Your task to perform on an android device: Go to Reddit.com Image 0: 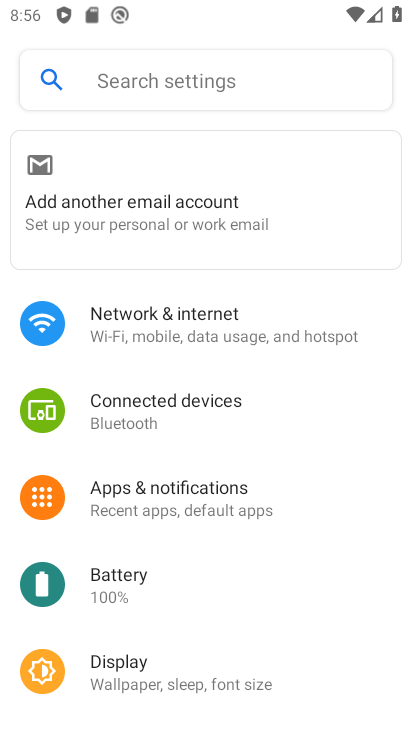
Step 0: press home button
Your task to perform on an android device: Go to Reddit.com Image 1: 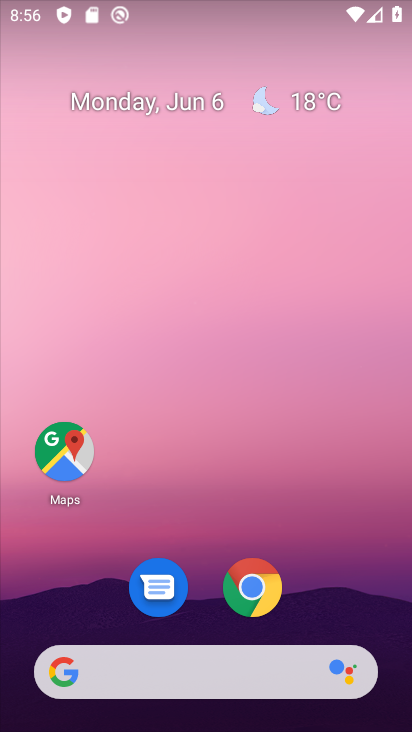
Step 1: click (250, 589)
Your task to perform on an android device: Go to Reddit.com Image 2: 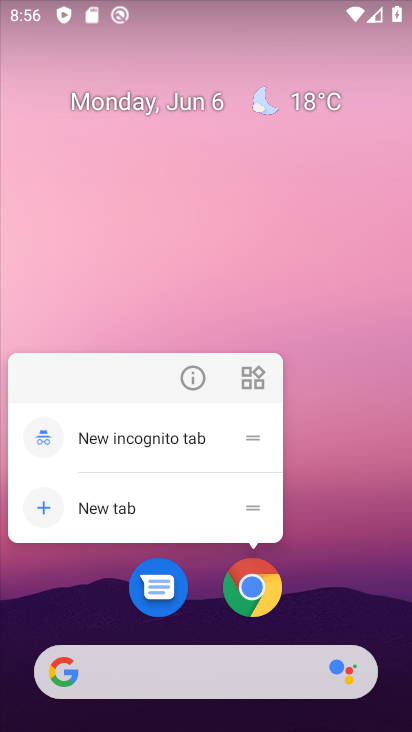
Step 2: click (244, 585)
Your task to perform on an android device: Go to Reddit.com Image 3: 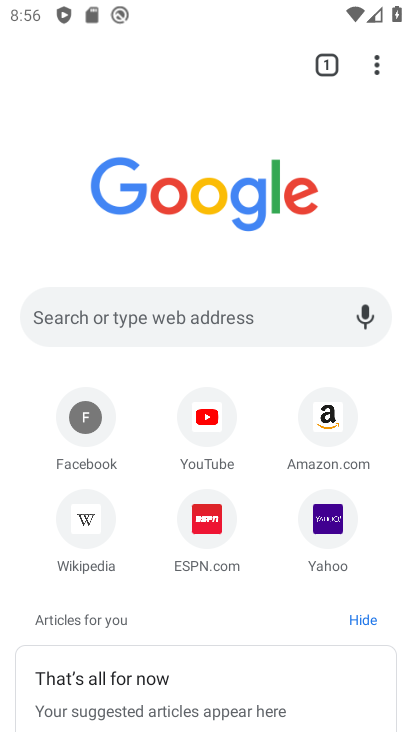
Step 3: click (200, 307)
Your task to perform on an android device: Go to Reddit.com Image 4: 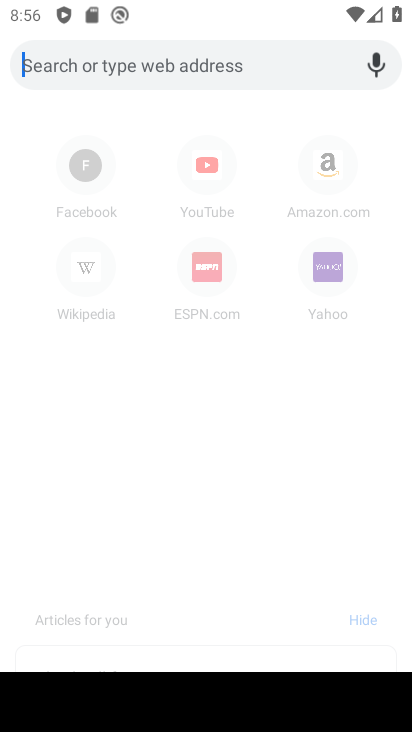
Step 4: type "reddit.com"
Your task to perform on an android device: Go to Reddit.com Image 5: 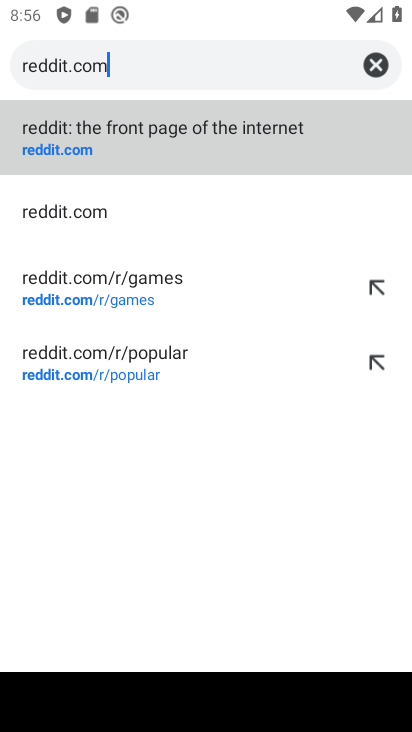
Step 5: click (66, 148)
Your task to perform on an android device: Go to Reddit.com Image 6: 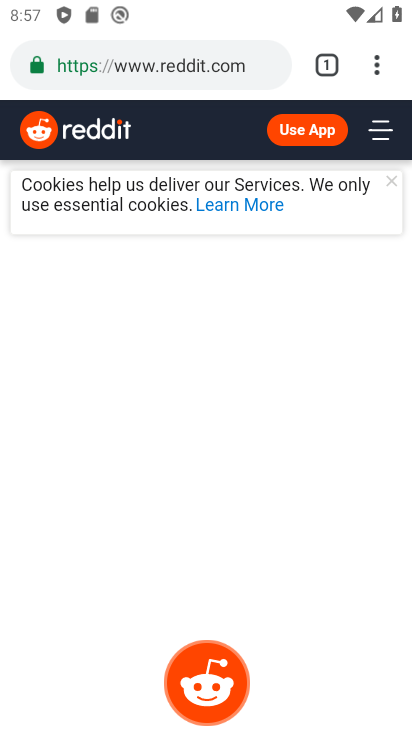
Step 6: task complete